Your task to perform on an android device: Play the last video I watched on Youtube Image 0: 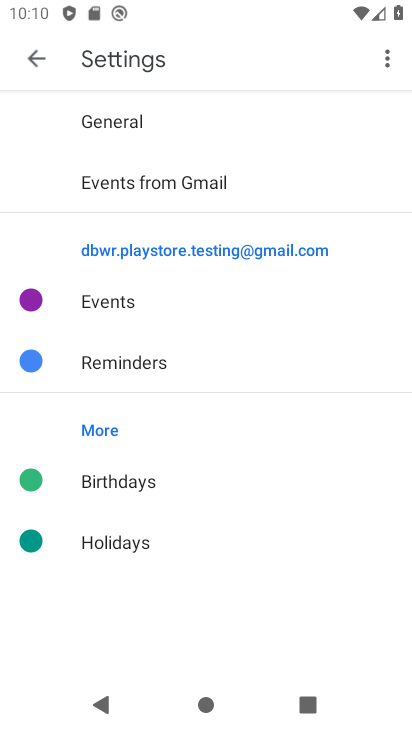
Step 0: press back button
Your task to perform on an android device: Play the last video I watched on Youtube Image 1: 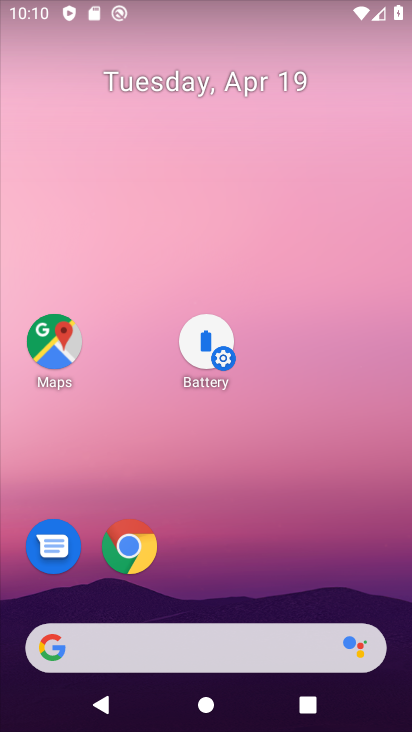
Step 1: drag from (212, 479) to (225, 69)
Your task to perform on an android device: Play the last video I watched on Youtube Image 2: 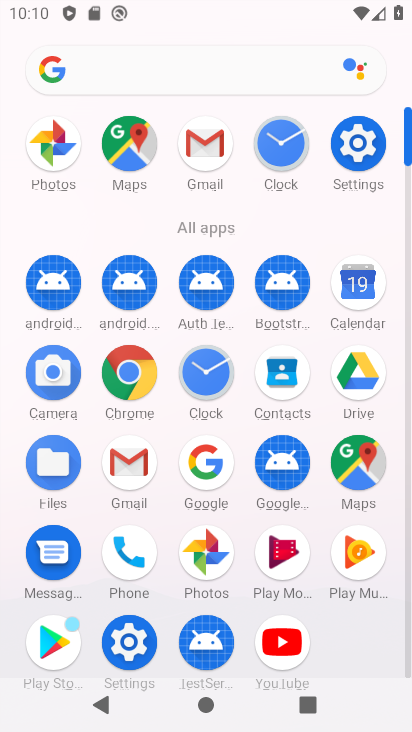
Step 2: click (288, 643)
Your task to perform on an android device: Play the last video I watched on Youtube Image 3: 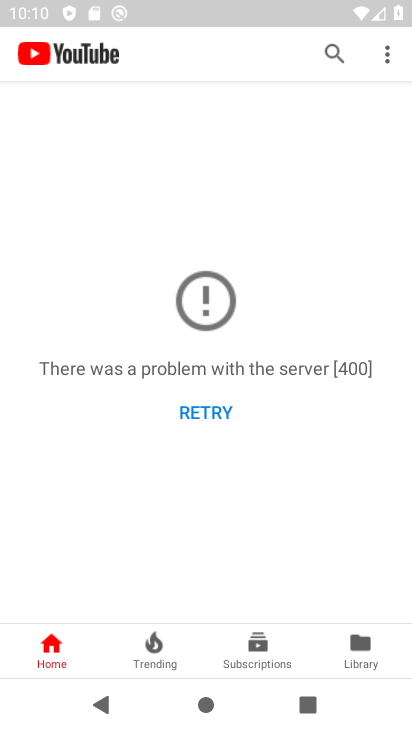
Step 3: click (354, 646)
Your task to perform on an android device: Play the last video I watched on Youtube Image 4: 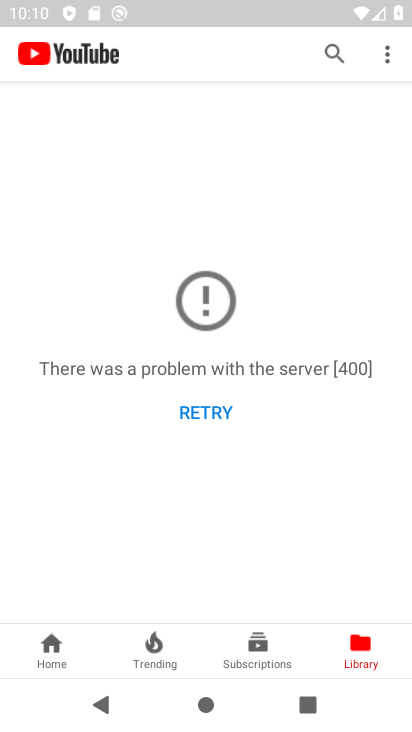
Step 4: task complete